Your task to perform on an android device: Go to CNN.com Image 0: 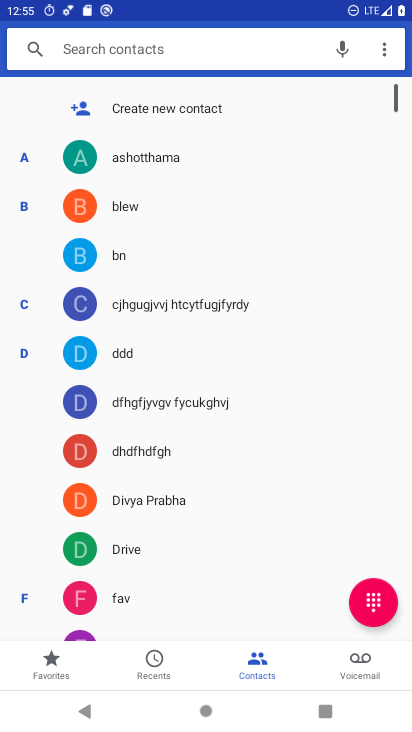
Step 0: press home button
Your task to perform on an android device: Go to CNN.com Image 1: 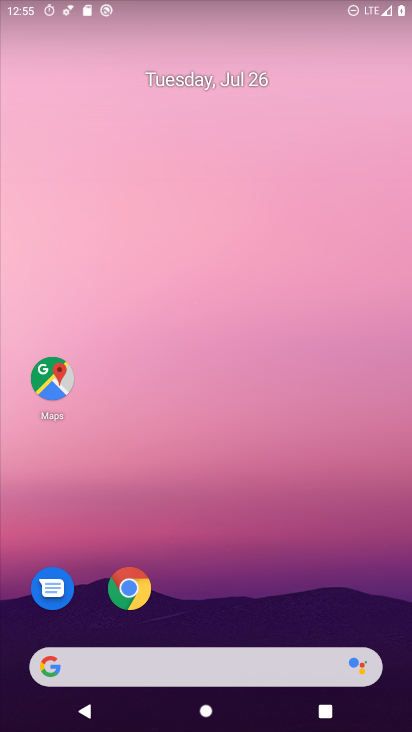
Step 1: drag from (245, 511) to (323, 106)
Your task to perform on an android device: Go to CNN.com Image 2: 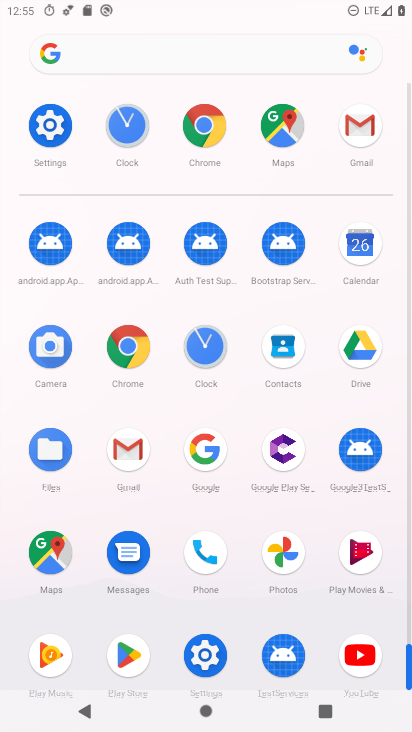
Step 2: click (134, 361)
Your task to perform on an android device: Go to CNN.com Image 3: 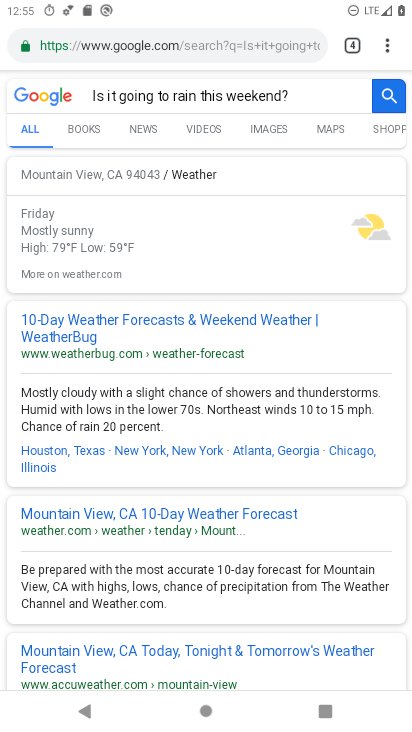
Step 3: click (360, 49)
Your task to perform on an android device: Go to CNN.com Image 4: 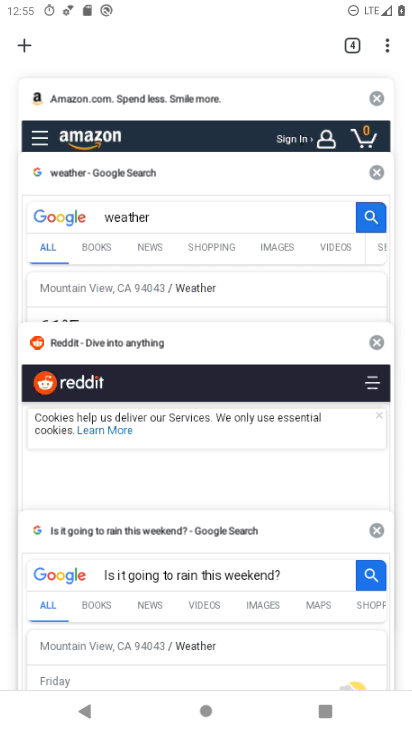
Step 4: click (22, 51)
Your task to perform on an android device: Go to CNN.com Image 5: 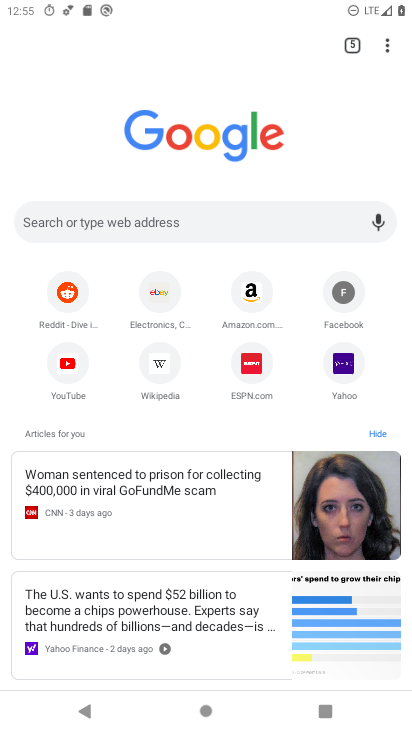
Step 5: click (230, 216)
Your task to perform on an android device: Go to CNN.com Image 6: 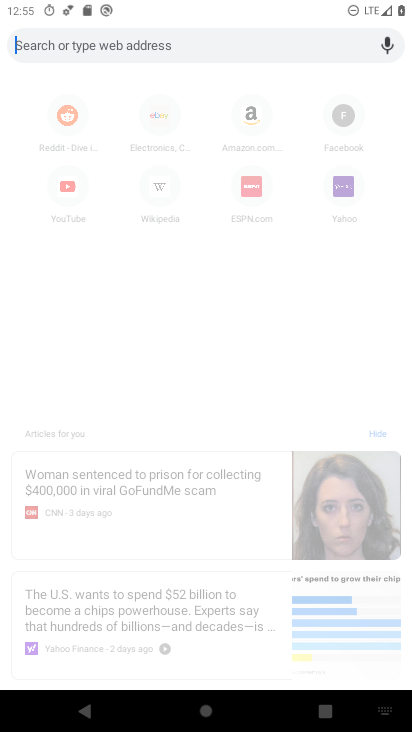
Step 6: type "CNN.com"
Your task to perform on an android device: Go to CNN.com Image 7: 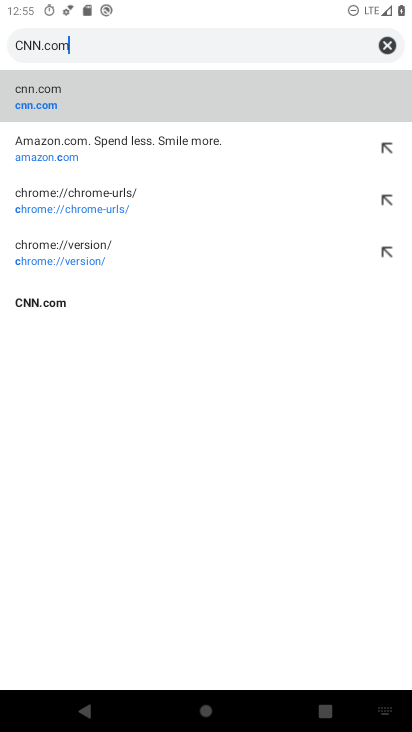
Step 7: type ""
Your task to perform on an android device: Go to CNN.com Image 8: 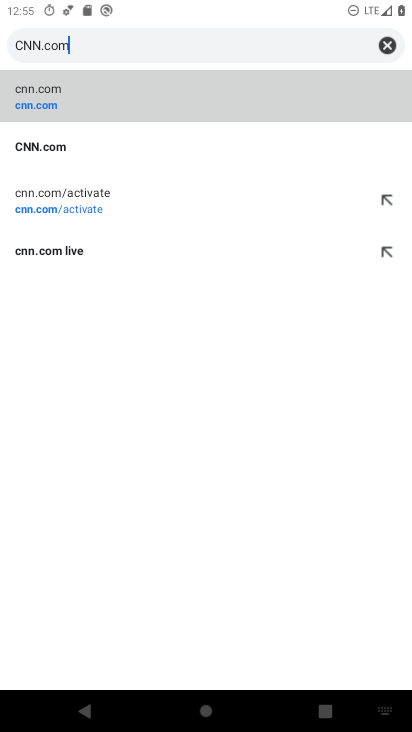
Step 8: click (200, 107)
Your task to perform on an android device: Go to CNN.com Image 9: 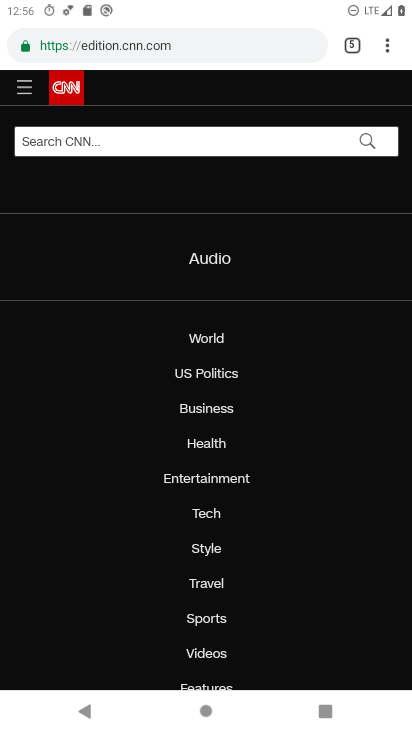
Step 9: task complete